Your task to perform on an android device: toggle show notifications on the lock screen Image 0: 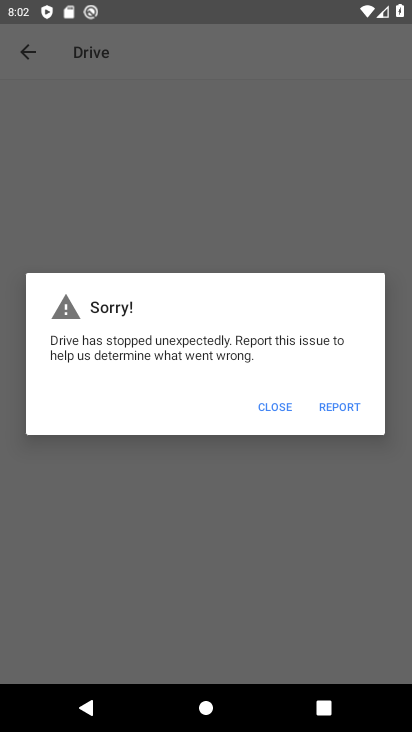
Step 0: press home button
Your task to perform on an android device: toggle show notifications on the lock screen Image 1: 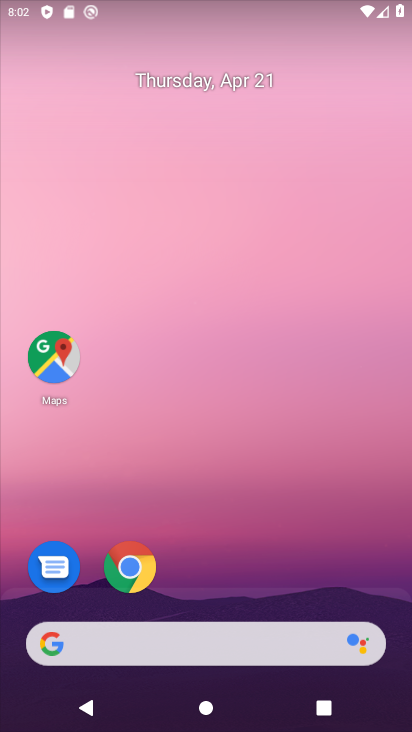
Step 1: drag from (213, 625) to (284, 0)
Your task to perform on an android device: toggle show notifications on the lock screen Image 2: 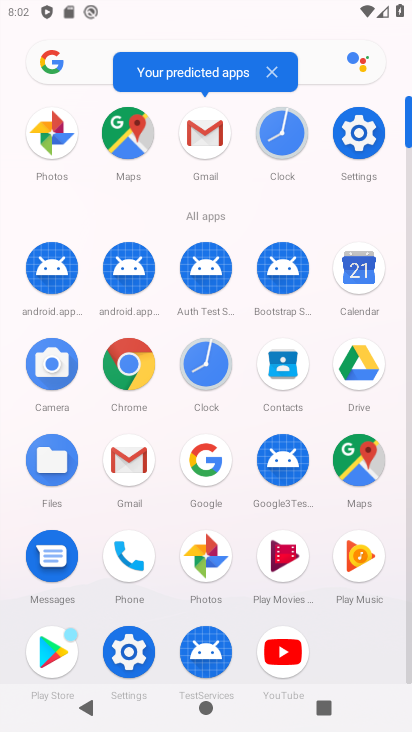
Step 2: click (366, 127)
Your task to perform on an android device: toggle show notifications on the lock screen Image 3: 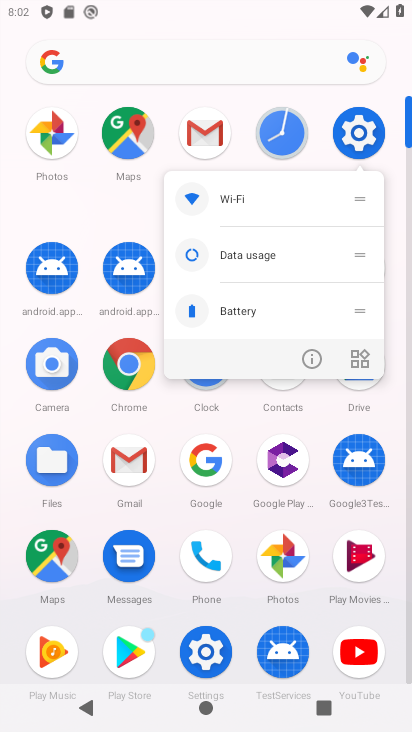
Step 3: click (366, 127)
Your task to perform on an android device: toggle show notifications on the lock screen Image 4: 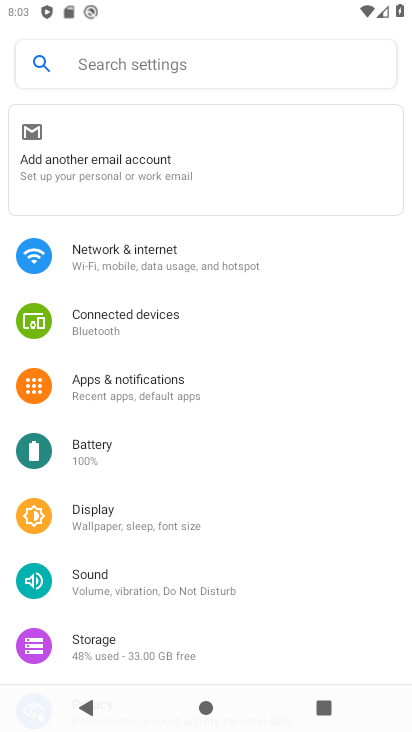
Step 4: click (124, 379)
Your task to perform on an android device: toggle show notifications on the lock screen Image 5: 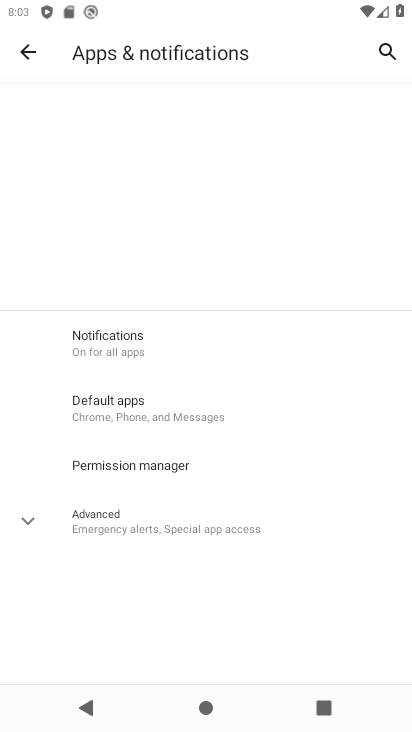
Step 5: click (125, 345)
Your task to perform on an android device: toggle show notifications on the lock screen Image 6: 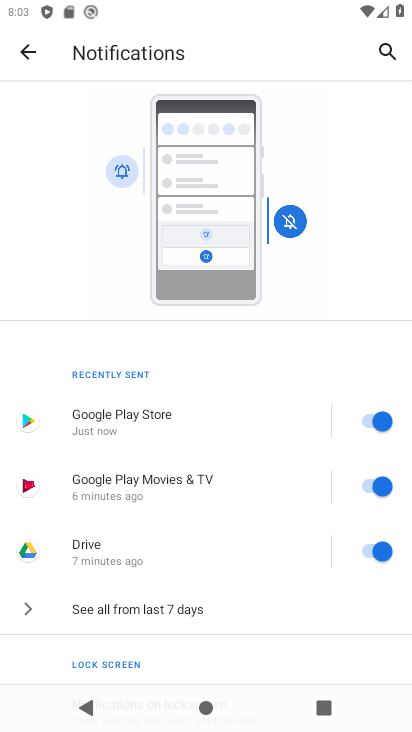
Step 6: drag from (159, 653) to (128, 364)
Your task to perform on an android device: toggle show notifications on the lock screen Image 7: 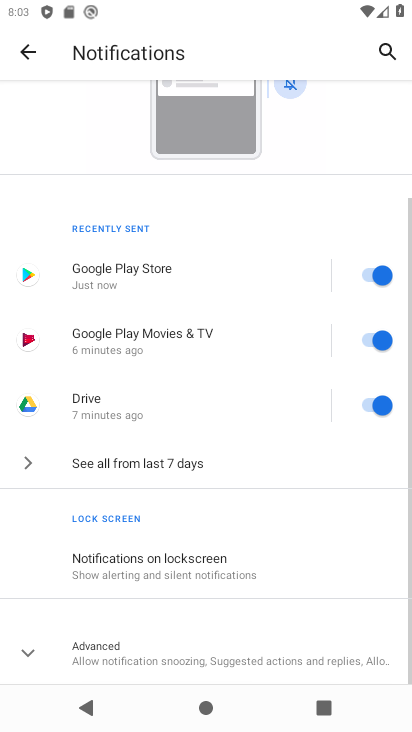
Step 7: click (100, 572)
Your task to perform on an android device: toggle show notifications on the lock screen Image 8: 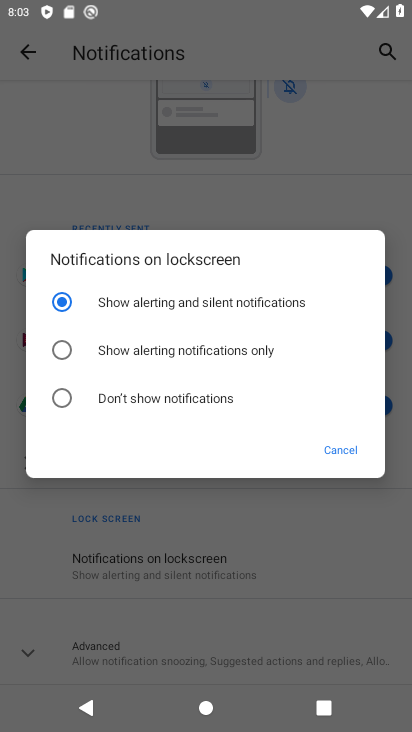
Step 8: click (85, 304)
Your task to perform on an android device: toggle show notifications on the lock screen Image 9: 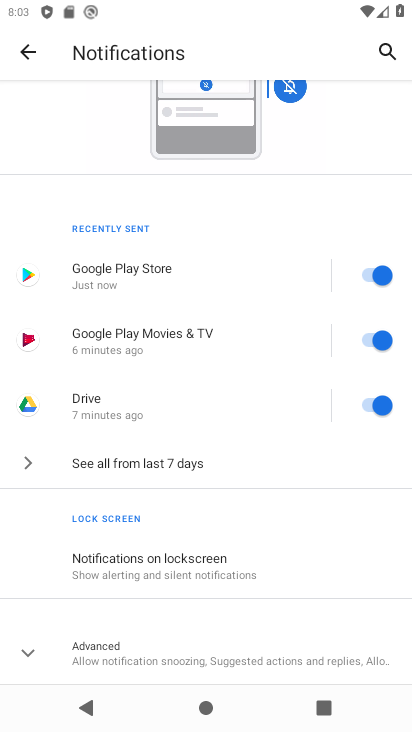
Step 9: task complete